Your task to perform on an android device: Open Google Chrome and open the bookmarks view Image 0: 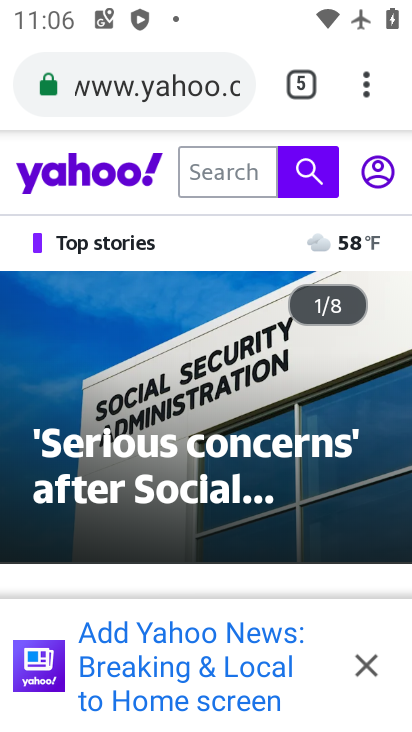
Step 0: click (370, 79)
Your task to perform on an android device: Open Google Chrome and open the bookmarks view Image 1: 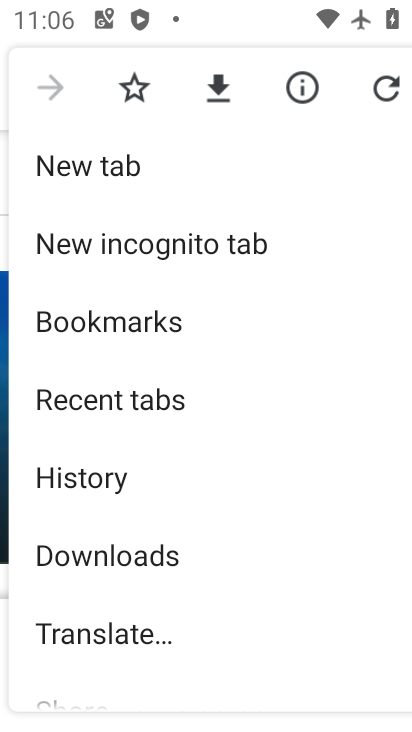
Step 1: click (196, 321)
Your task to perform on an android device: Open Google Chrome and open the bookmarks view Image 2: 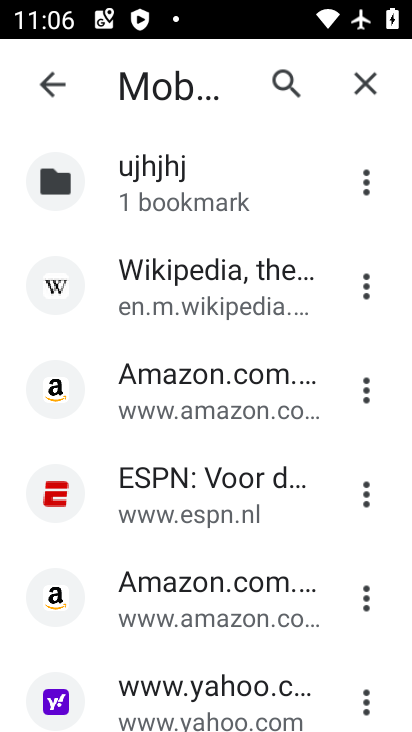
Step 2: task complete